Your task to perform on an android device: toggle translation in the chrome app Image 0: 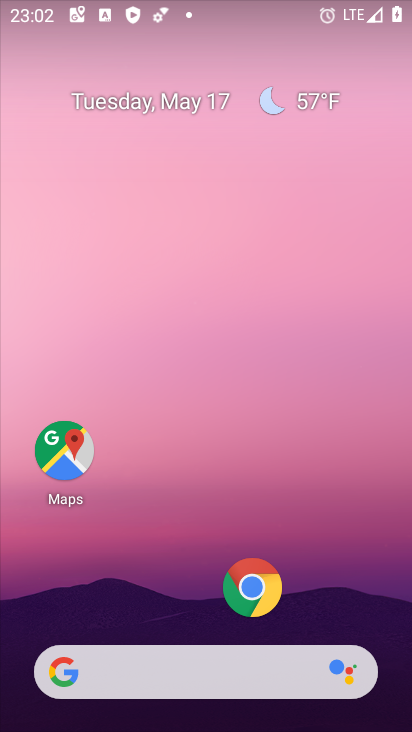
Step 0: drag from (254, 508) to (346, 122)
Your task to perform on an android device: toggle translation in the chrome app Image 1: 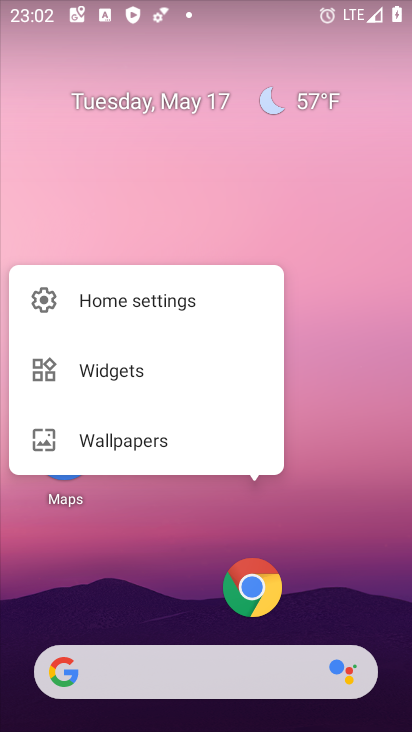
Step 1: click (200, 536)
Your task to perform on an android device: toggle translation in the chrome app Image 2: 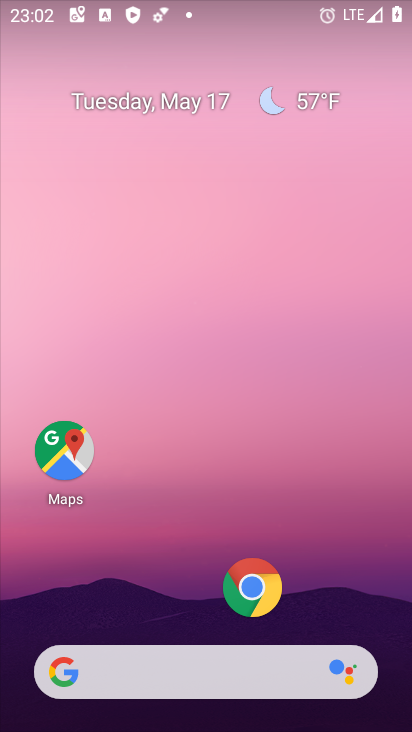
Step 2: drag from (149, 583) to (321, 184)
Your task to perform on an android device: toggle translation in the chrome app Image 3: 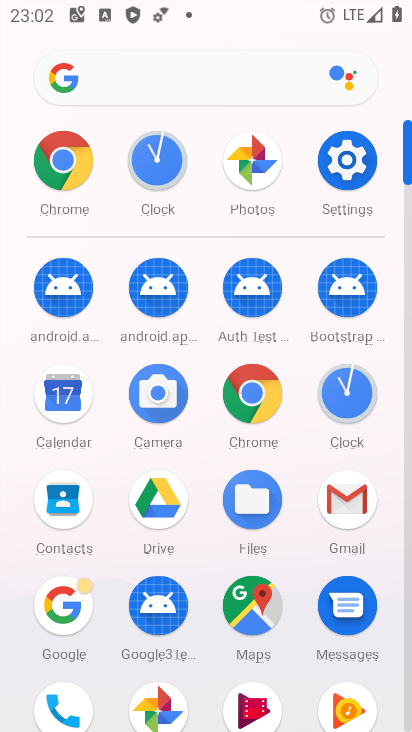
Step 3: click (249, 410)
Your task to perform on an android device: toggle translation in the chrome app Image 4: 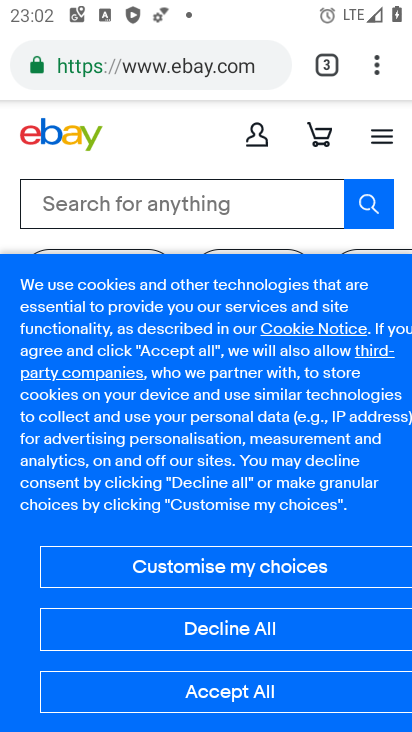
Step 4: click (384, 71)
Your task to perform on an android device: toggle translation in the chrome app Image 5: 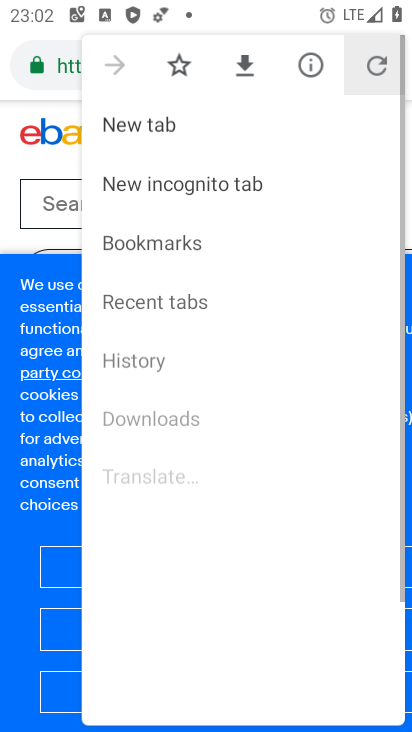
Step 5: click (372, 72)
Your task to perform on an android device: toggle translation in the chrome app Image 6: 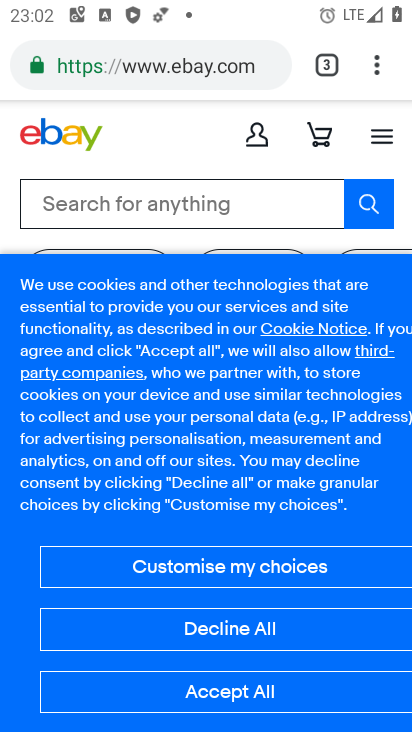
Step 6: click (382, 62)
Your task to perform on an android device: toggle translation in the chrome app Image 7: 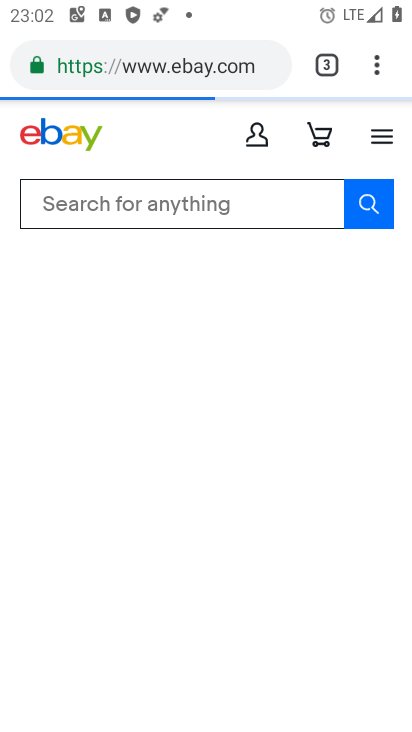
Step 7: click (381, 68)
Your task to perform on an android device: toggle translation in the chrome app Image 8: 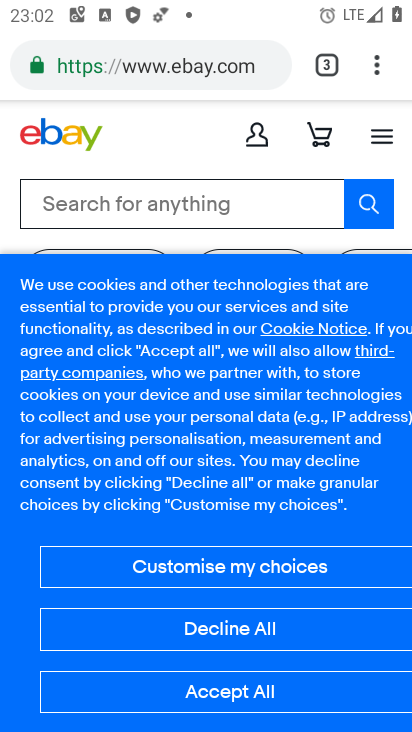
Step 8: click (377, 65)
Your task to perform on an android device: toggle translation in the chrome app Image 9: 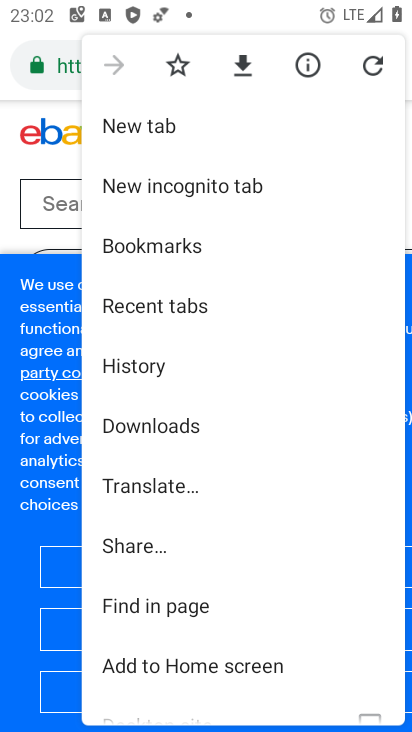
Step 9: click (300, 308)
Your task to perform on an android device: toggle translation in the chrome app Image 10: 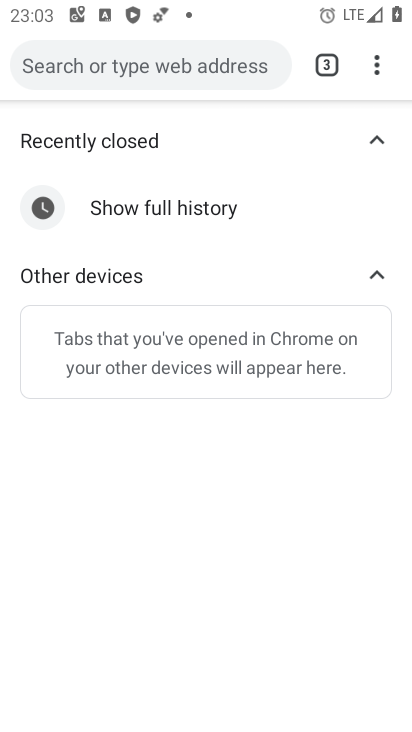
Step 10: click (379, 55)
Your task to perform on an android device: toggle translation in the chrome app Image 11: 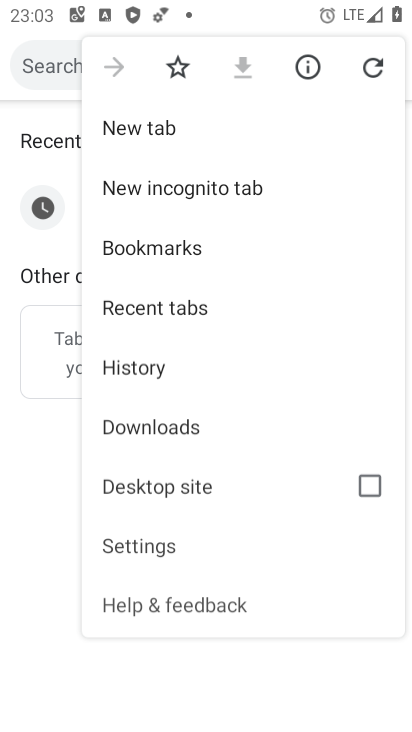
Step 11: click (383, 65)
Your task to perform on an android device: toggle translation in the chrome app Image 12: 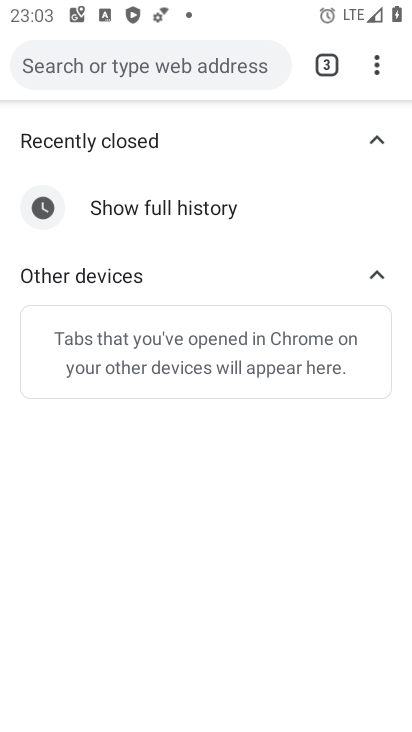
Step 12: click (377, 75)
Your task to perform on an android device: toggle translation in the chrome app Image 13: 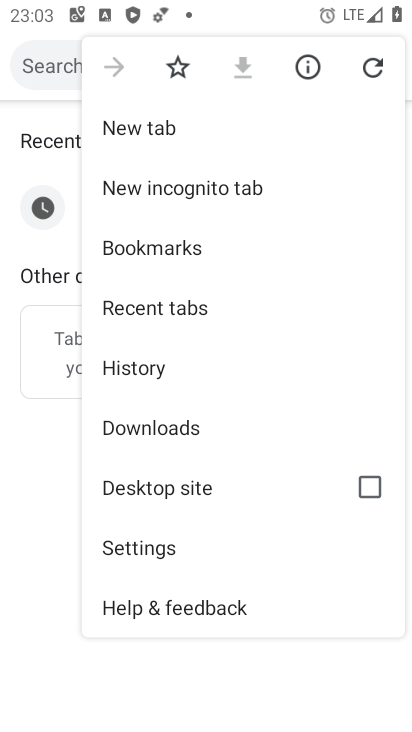
Step 13: click (174, 556)
Your task to perform on an android device: toggle translation in the chrome app Image 14: 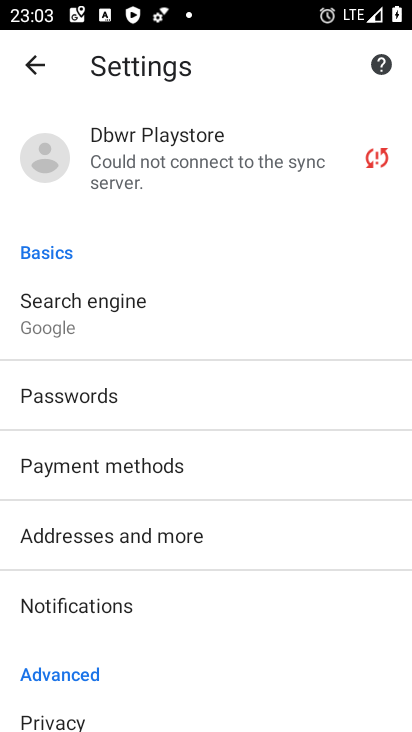
Step 14: drag from (149, 624) to (237, 309)
Your task to perform on an android device: toggle translation in the chrome app Image 15: 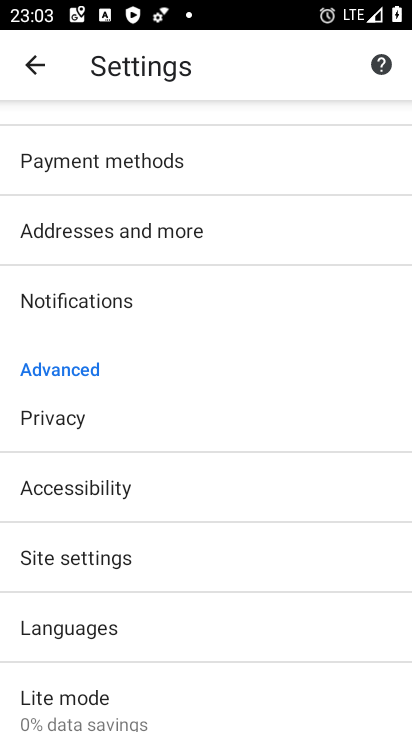
Step 15: drag from (114, 711) to (211, 363)
Your task to perform on an android device: toggle translation in the chrome app Image 16: 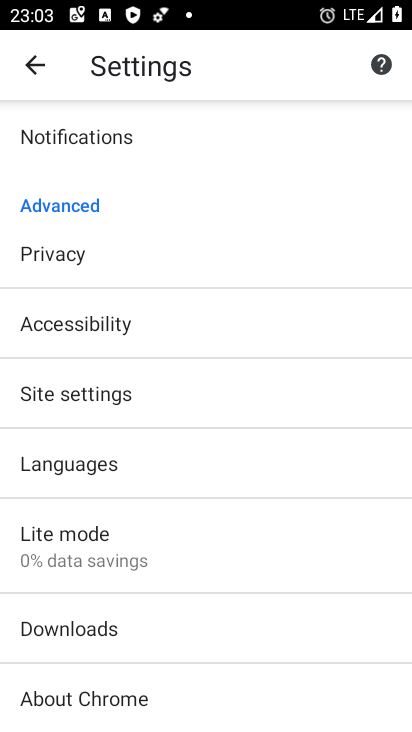
Step 16: click (109, 467)
Your task to perform on an android device: toggle translation in the chrome app Image 17: 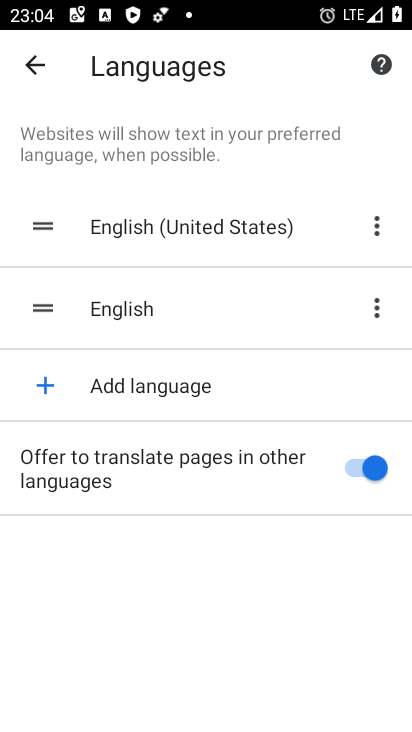
Step 17: task complete